Your task to perform on an android device: Open privacy settings Image 0: 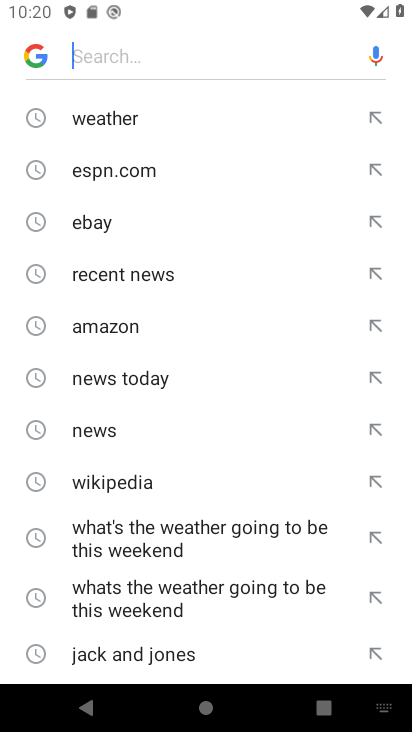
Step 0: press home button
Your task to perform on an android device: Open privacy settings Image 1: 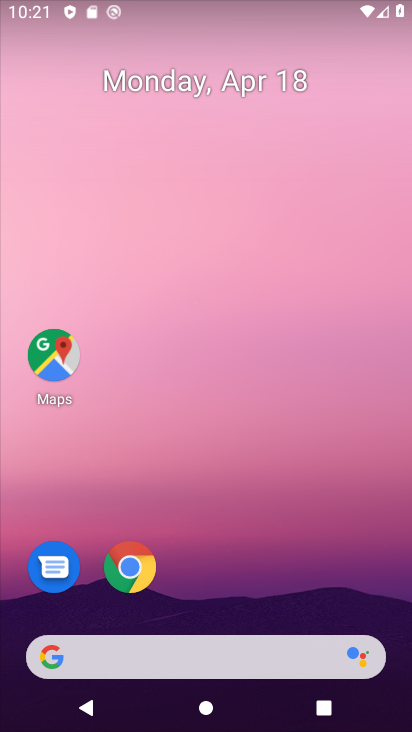
Step 1: click (132, 562)
Your task to perform on an android device: Open privacy settings Image 2: 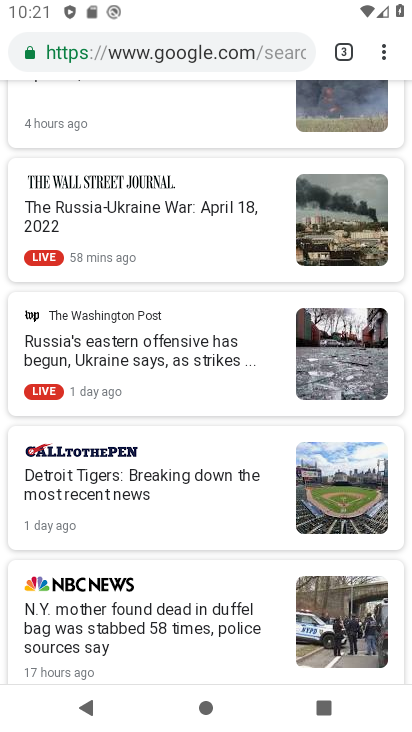
Step 2: click (389, 50)
Your task to perform on an android device: Open privacy settings Image 3: 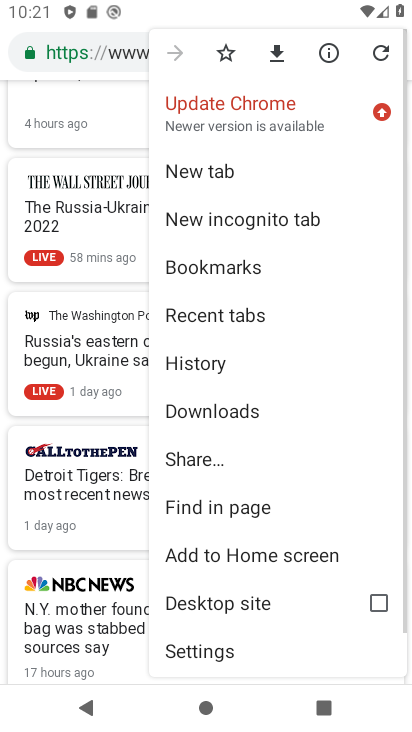
Step 3: click (190, 642)
Your task to perform on an android device: Open privacy settings Image 4: 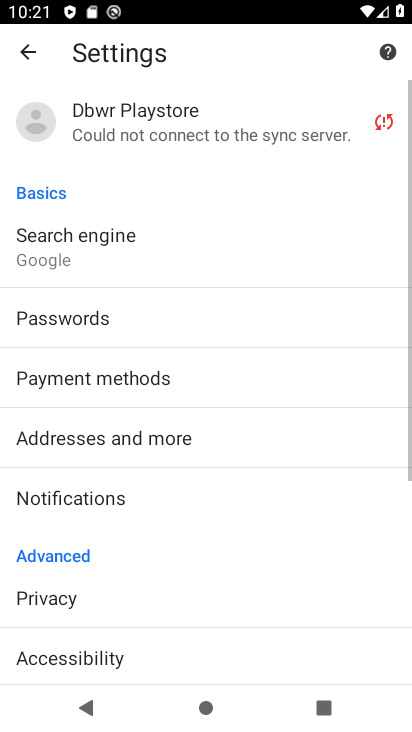
Step 4: click (57, 595)
Your task to perform on an android device: Open privacy settings Image 5: 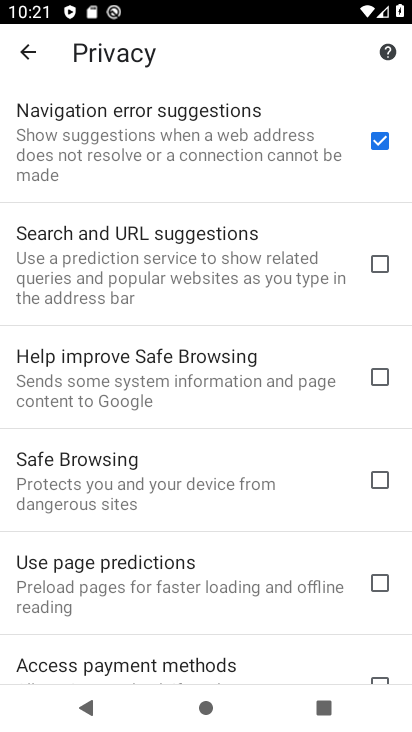
Step 5: task complete